Your task to perform on an android device: toggle wifi Image 0: 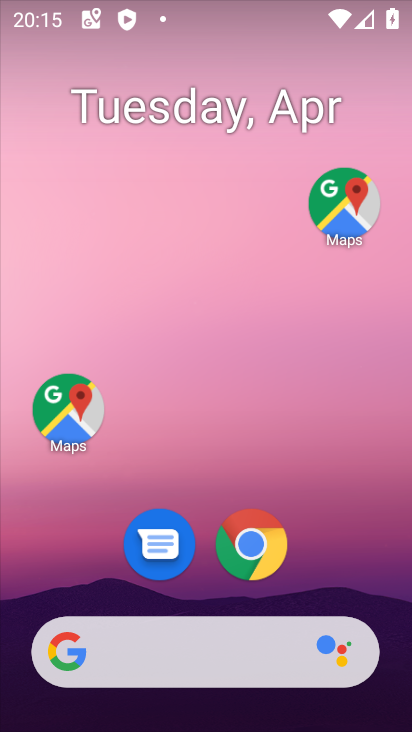
Step 0: drag from (153, 638) to (288, 104)
Your task to perform on an android device: toggle wifi Image 1: 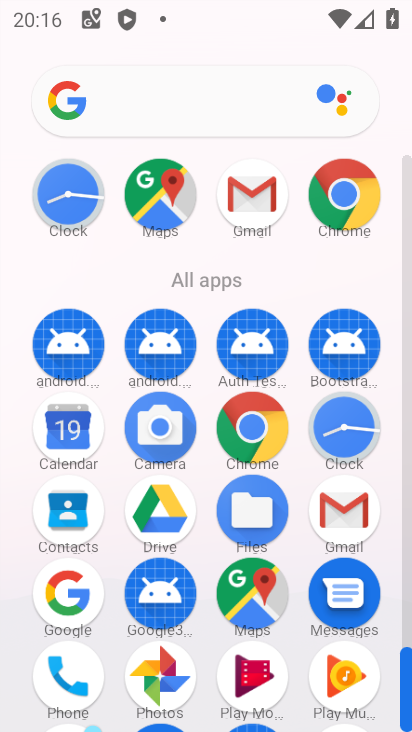
Step 1: drag from (194, 611) to (384, 69)
Your task to perform on an android device: toggle wifi Image 2: 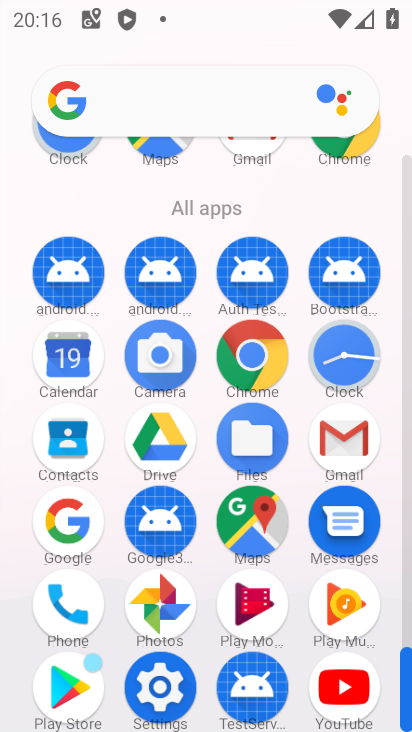
Step 2: click (170, 684)
Your task to perform on an android device: toggle wifi Image 3: 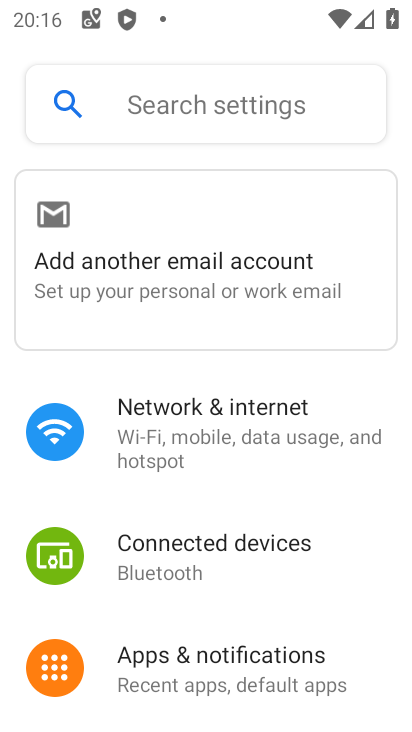
Step 3: click (253, 418)
Your task to perform on an android device: toggle wifi Image 4: 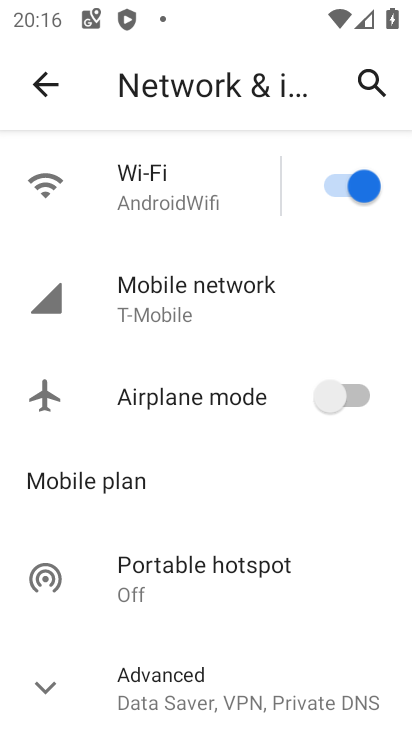
Step 4: click (335, 188)
Your task to perform on an android device: toggle wifi Image 5: 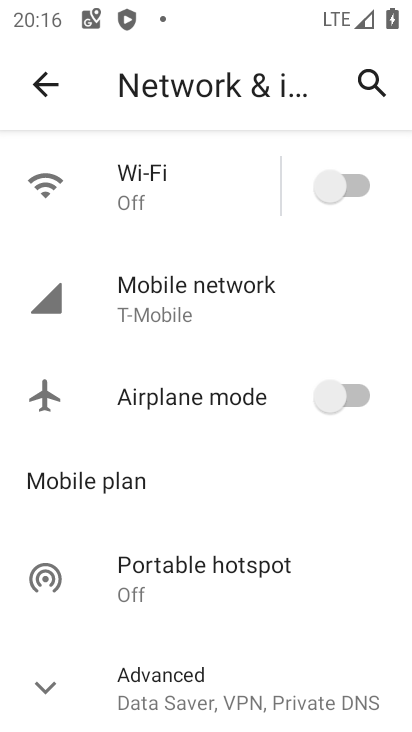
Step 5: task complete